Your task to perform on an android device: Open Yahoo.com Image 0: 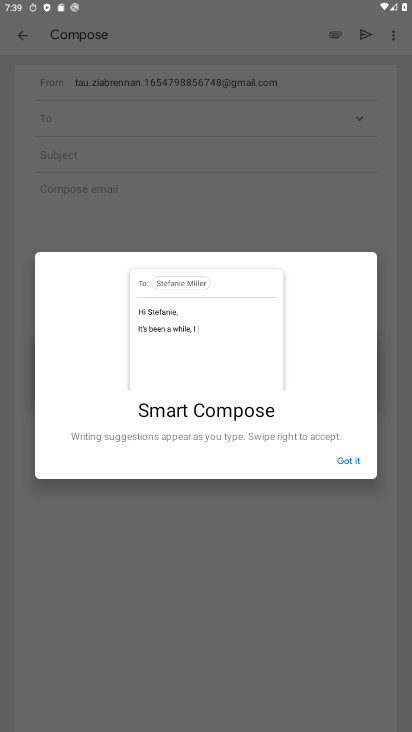
Step 0: press home button
Your task to perform on an android device: Open Yahoo.com Image 1: 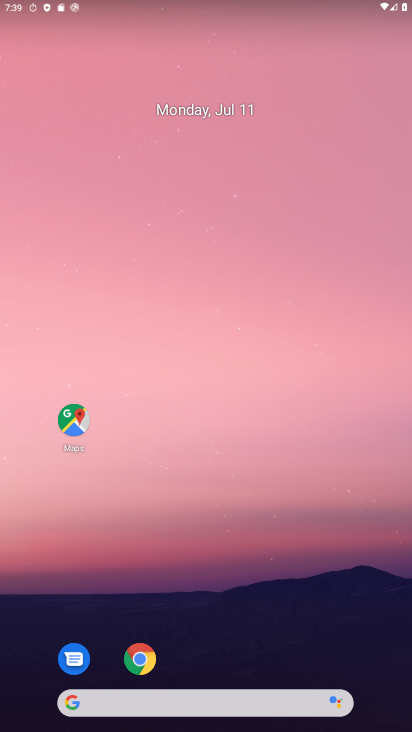
Step 1: drag from (198, 616) to (260, 2)
Your task to perform on an android device: Open Yahoo.com Image 2: 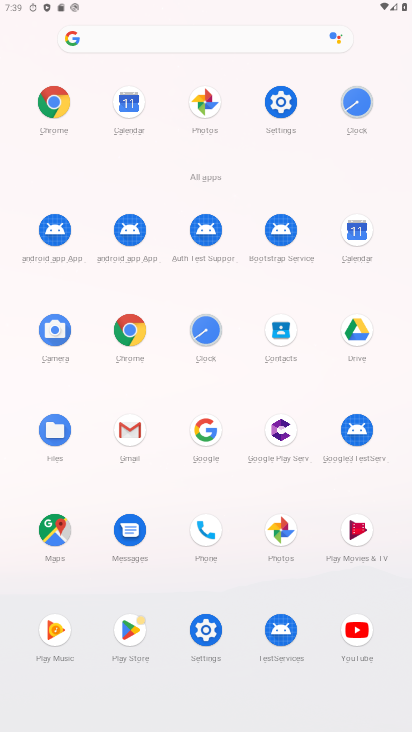
Step 2: click (51, 103)
Your task to perform on an android device: Open Yahoo.com Image 3: 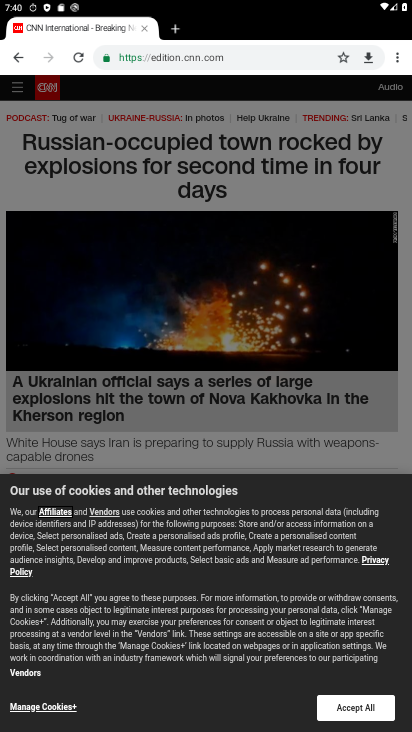
Step 3: click (19, 68)
Your task to perform on an android device: Open Yahoo.com Image 4: 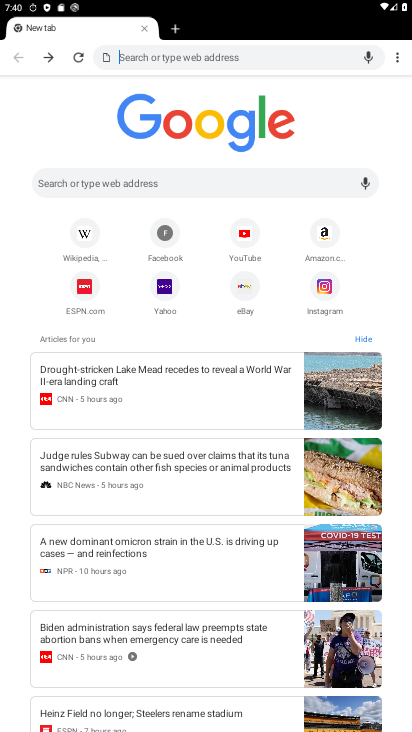
Step 4: click (156, 293)
Your task to perform on an android device: Open Yahoo.com Image 5: 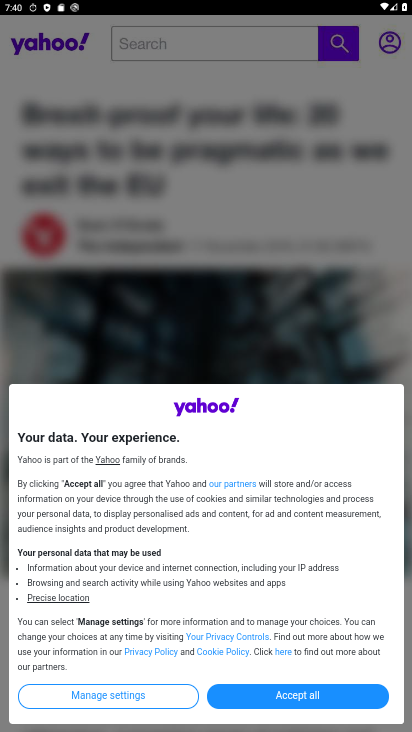
Step 5: task complete